Your task to perform on an android device: Search for seafood restaurants on Google Maps Image 0: 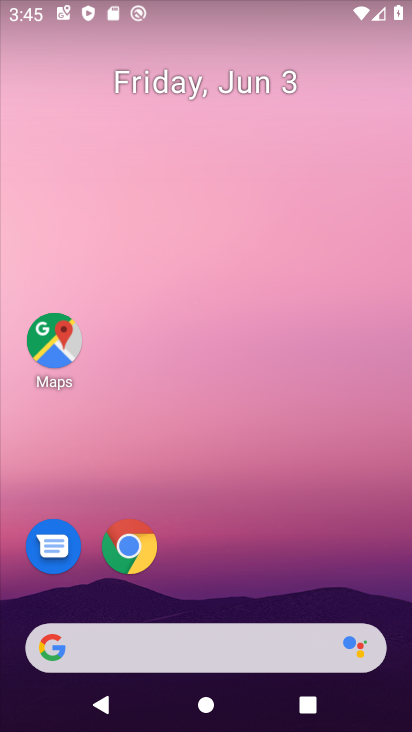
Step 0: click (50, 349)
Your task to perform on an android device: Search for seafood restaurants on Google Maps Image 1: 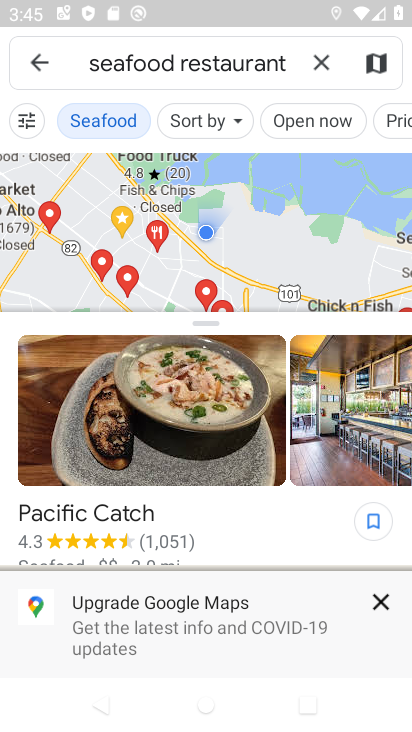
Step 1: task complete